Your task to perform on an android device: What's the weather today? Image 0: 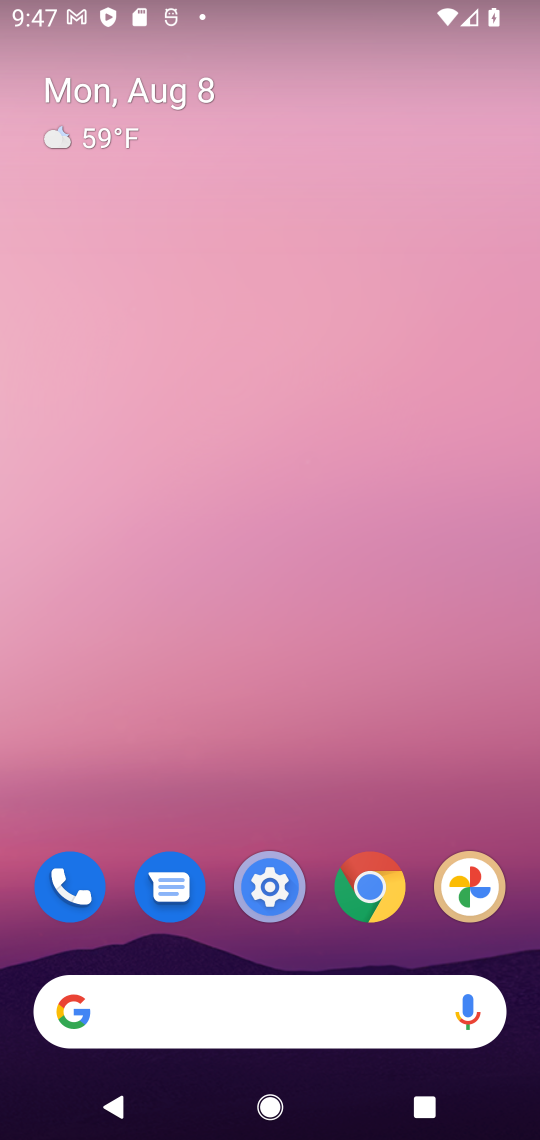
Step 0: drag from (341, 803) to (285, 165)
Your task to perform on an android device: What's the weather today? Image 1: 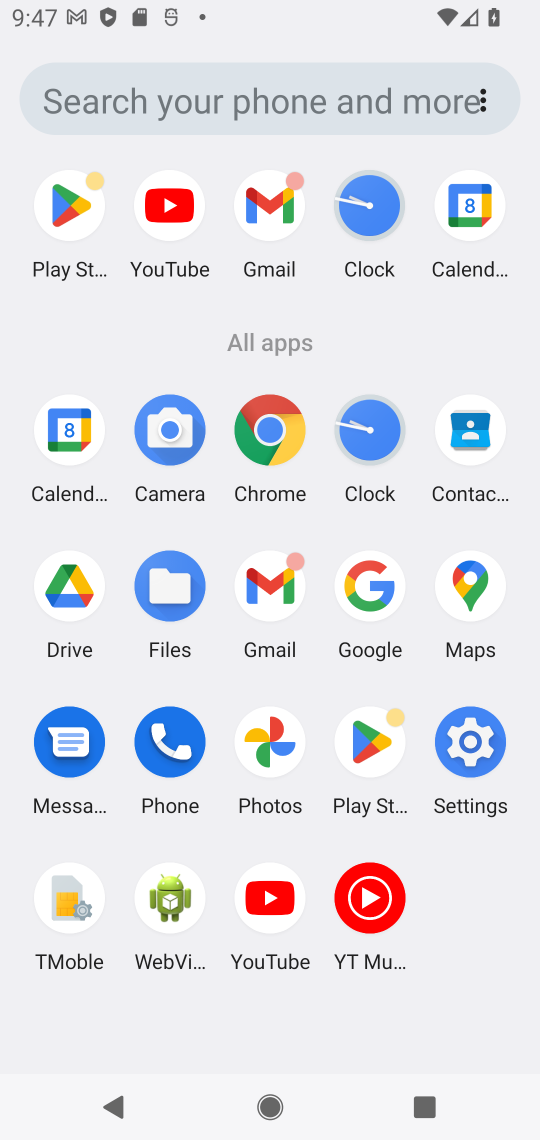
Step 1: click (378, 602)
Your task to perform on an android device: What's the weather today? Image 2: 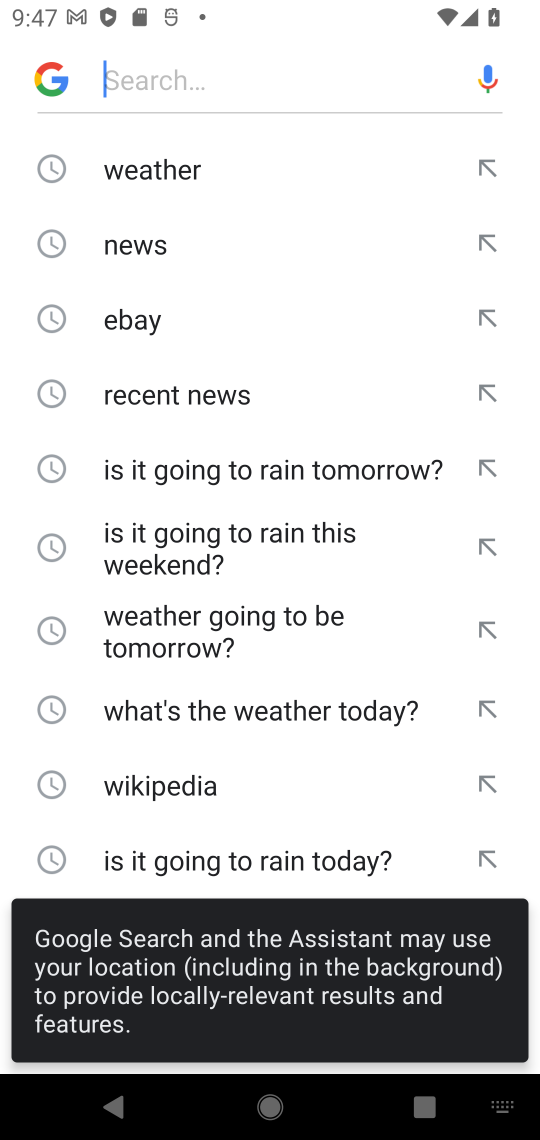
Step 2: click (208, 160)
Your task to perform on an android device: What's the weather today? Image 3: 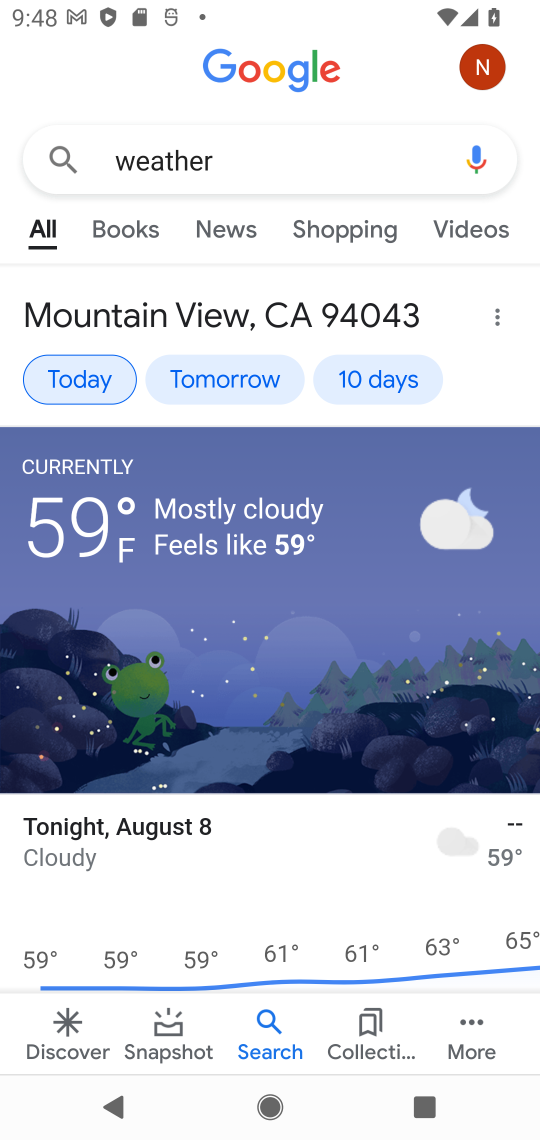
Step 3: task complete